Your task to perform on an android device: empty trash in the gmail app Image 0: 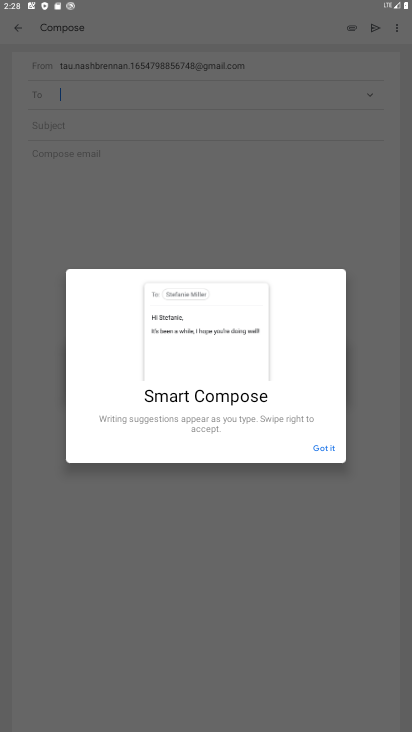
Step 0: press home button
Your task to perform on an android device: empty trash in the gmail app Image 1: 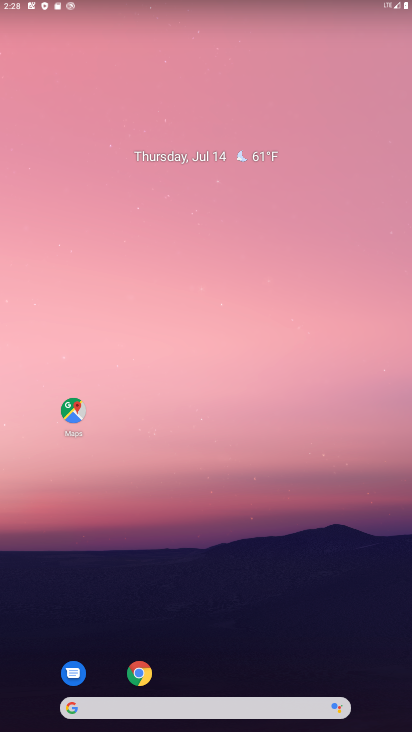
Step 1: drag from (236, 541) to (250, 3)
Your task to perform on an android device: empty trash in the gmail app Image 2: 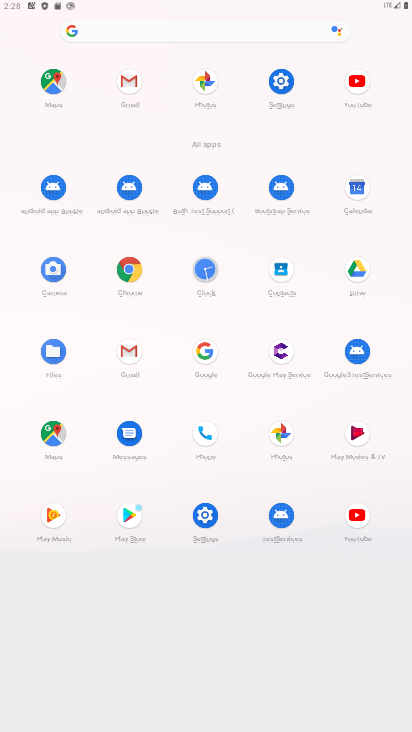
Step 2: click (127, 75)
Your task to perform on an android device: empty trash in the gmail app Image 3: 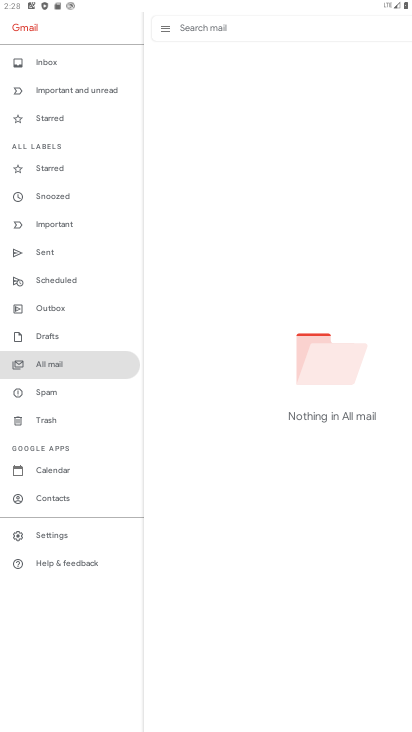
Step 3: click (36, 421)
Your task to perform on an android device: empty trash in the gmail app Image 4: 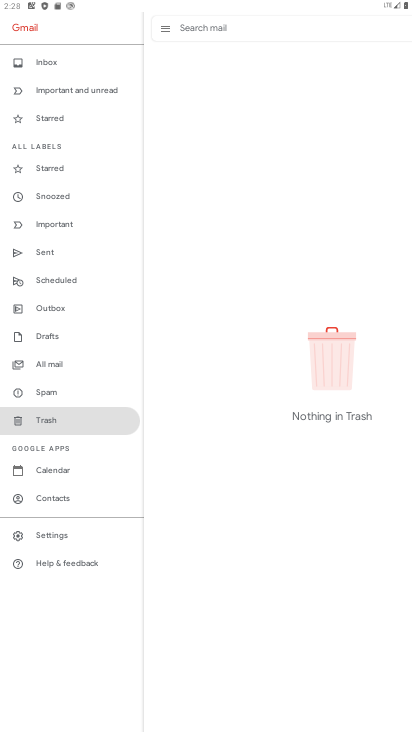
Step 4: task complete